Your task to perform on an android device: Turn on the flashlight Image 0: 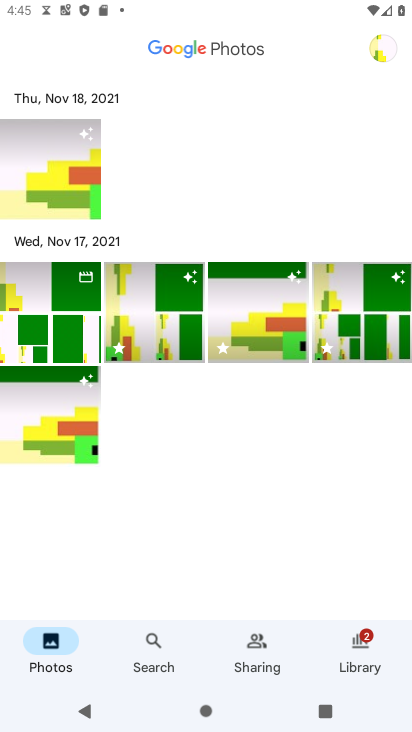
Step 0: press home button
Your task to perform on an android device: Turn on the flashlight Image 1: 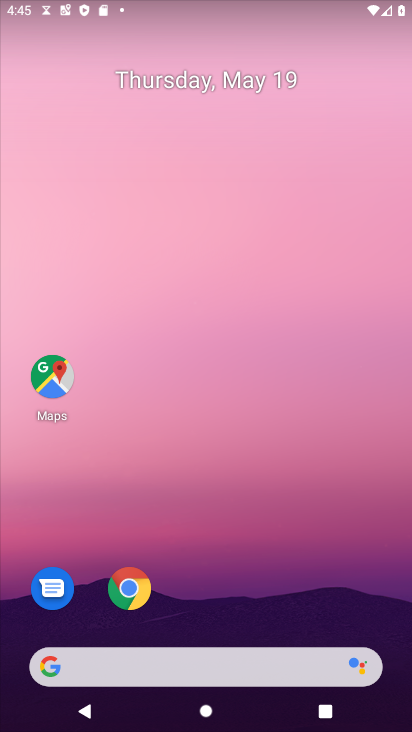
Step 1: drag from (248, 589) to (278, 73)
Your task to perform on an android device: Turn on the flashlight Image 2: 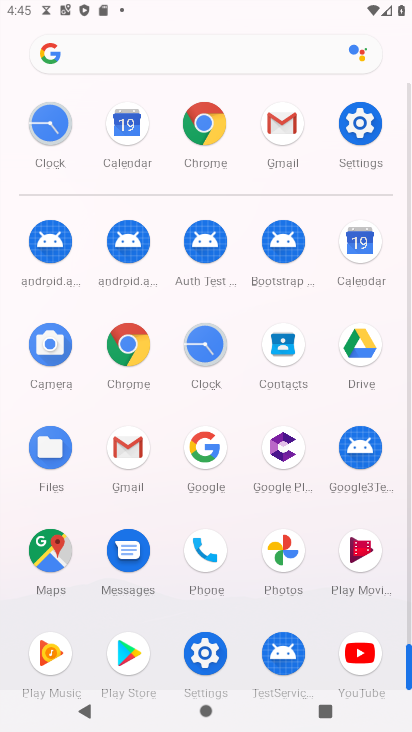
Step 2: click (367, 114)
Your task to perform on an android device: Turn on the flashlight Image 3: 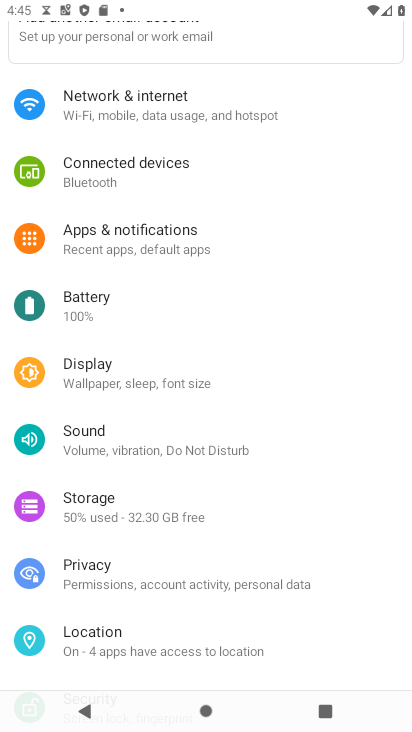
Step 3: drag from (228, 99) to (193, 409)
Your task to perform on an android device: Turn on the flashlight Image 4: 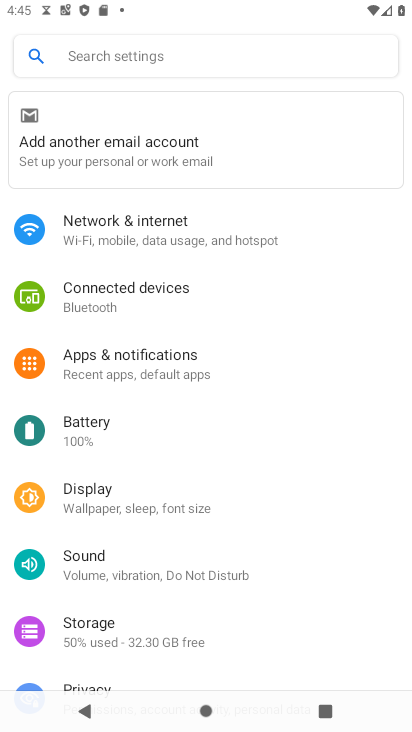
Step 4: click (216, 61)
Your task to perform on an android device: Turn on the flashlight Image 5: 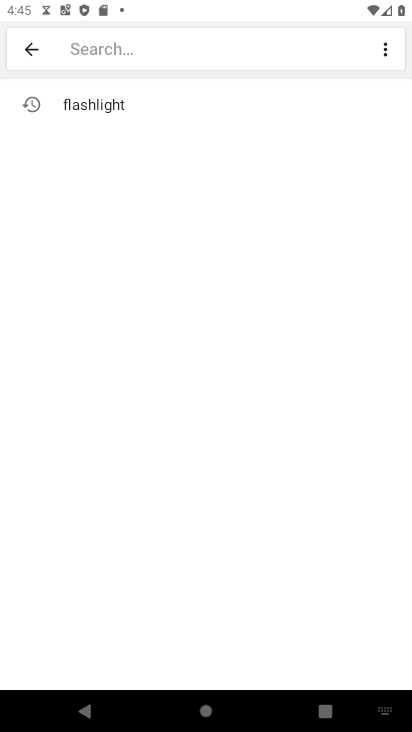
Step 5: type "flashlight"
Your task to perform on an android device: Turn on the flashlight Image 6: 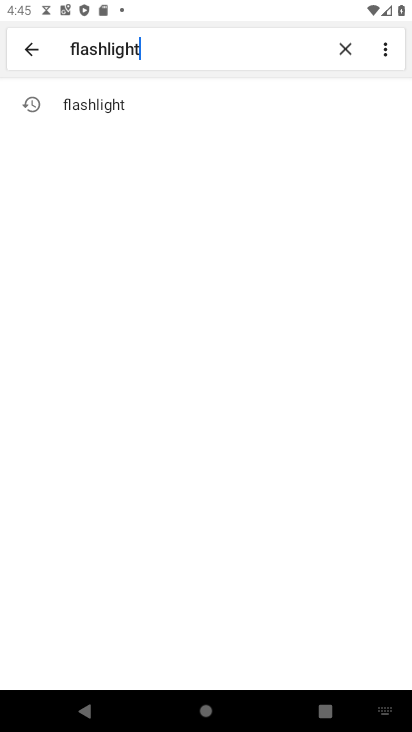
Step 6: click (117, 121)
Your task to perform on an android device: Turn on the flashlight Image 7: 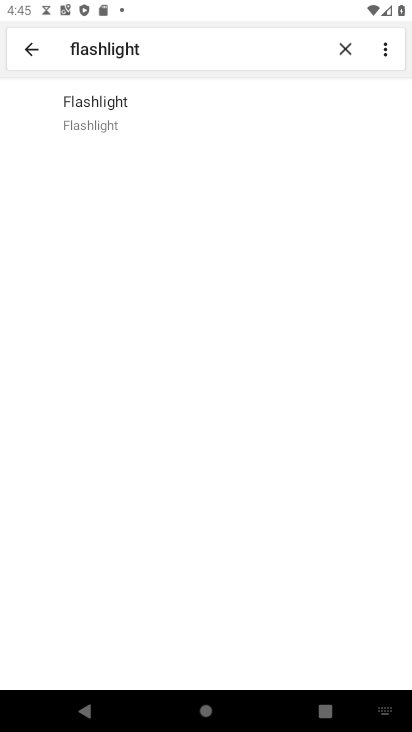
Step 7: click (123, 122)
Your task to perform on an android device: Turn on the flashlight Image 8: 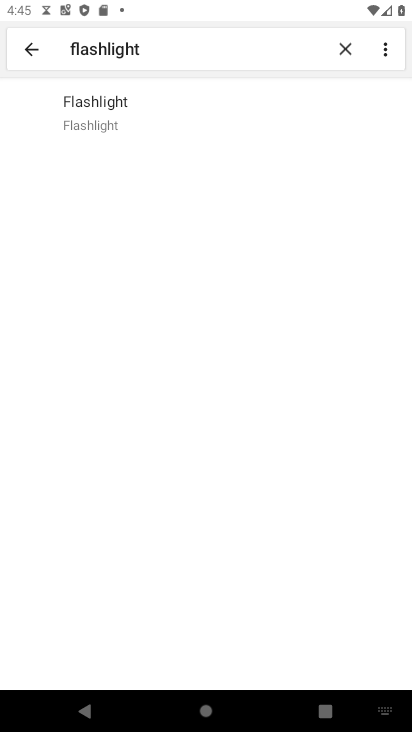
Step 8: task complete